Your task to perform on an android device: turn off airplane mode Image 0: 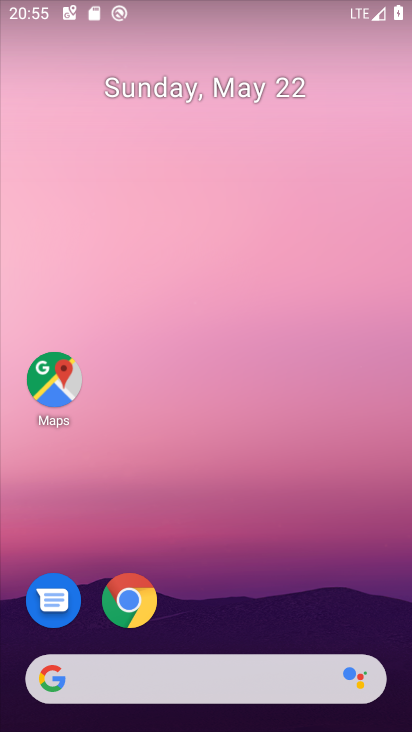
Step 0: drag from (213, 633) to (321, 212)
Your task to perform on an android device: turn off airplane mode Image 1: 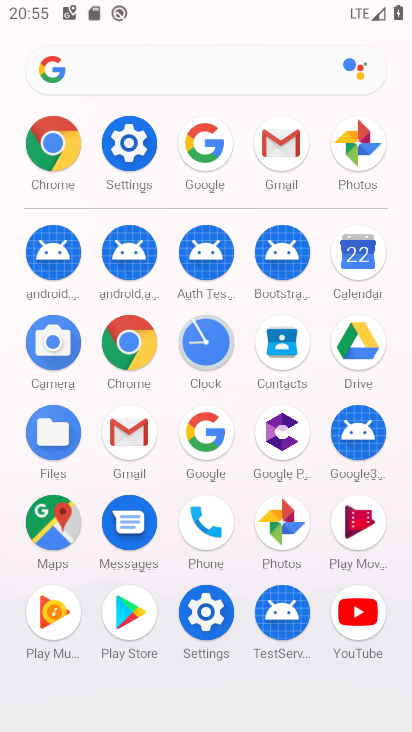
Step 1: click (136, 147)
Your task to perform on an android device: turn off airplane mode Image 2: 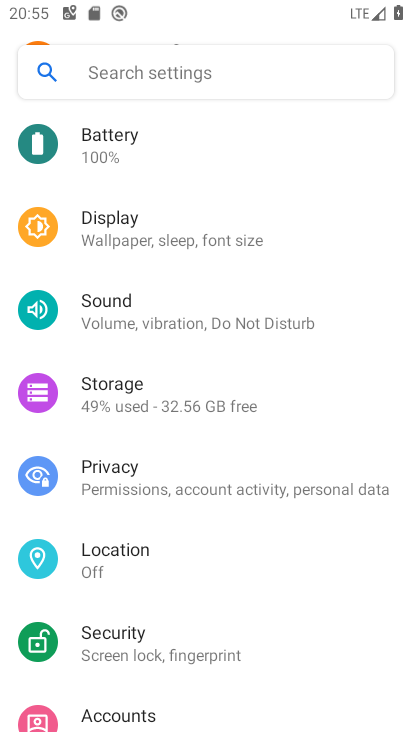
Step 2: drag from (226, 80) to (258, 505)
Your task to perform on an android device: turn off airplane mode Image 3: 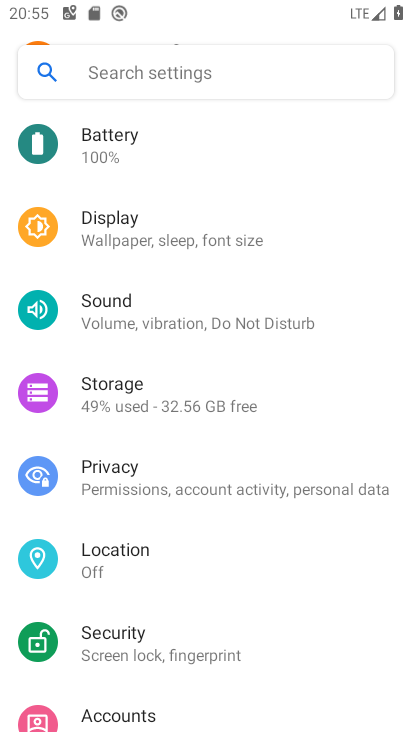
Step 3: drag from (213, 131) to (245, 508)
Your task to perform on an android device: turn off airplane mode Image 4: 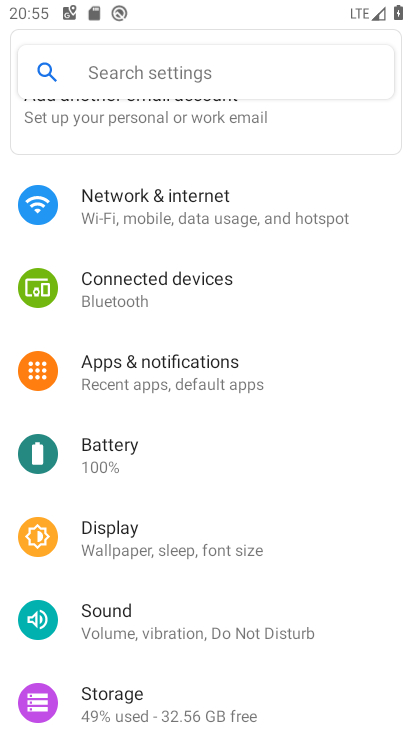
Step 4: click (187, 207)
Your task to perform on an android device: turn off airplane mode Image 5: 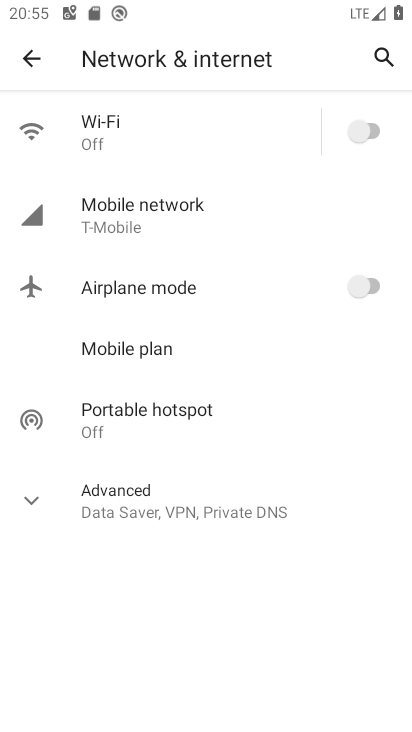
Step 5: task complete